Your task to perform on an android device: Open Chrome and go to settings Image 0: 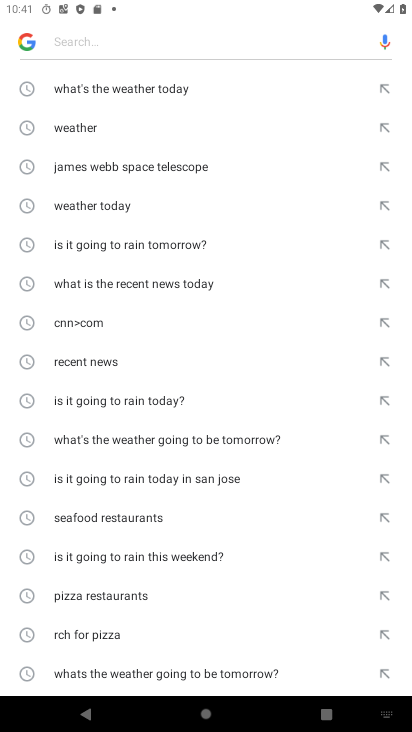
Step 0: press home button
Your task to perform on an android device: Open Chrome and go to settings Image 1: 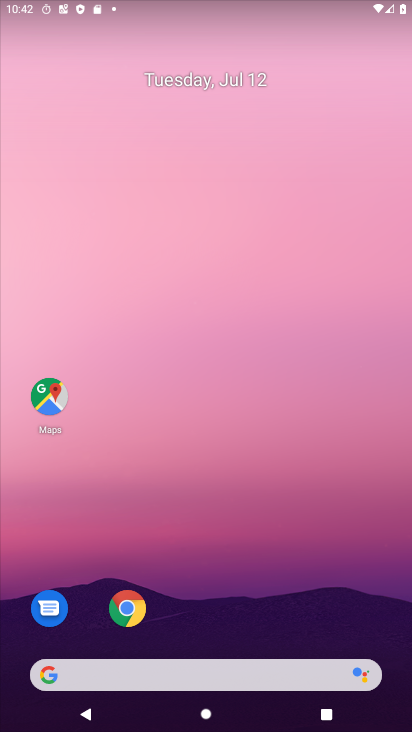
Step 1: click (131, 608)
Your task to perform on an android device: Open Chrome and go to settings Image 2: 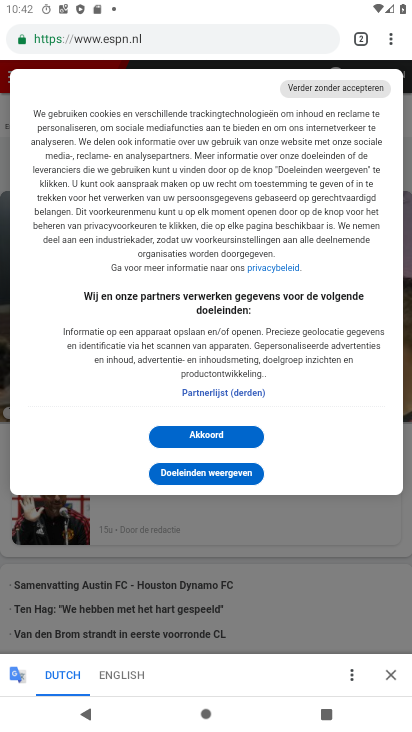
Step 2: click (395, 42)
Your task to perform on an android device: Open Chrome and go to settings Image 3: 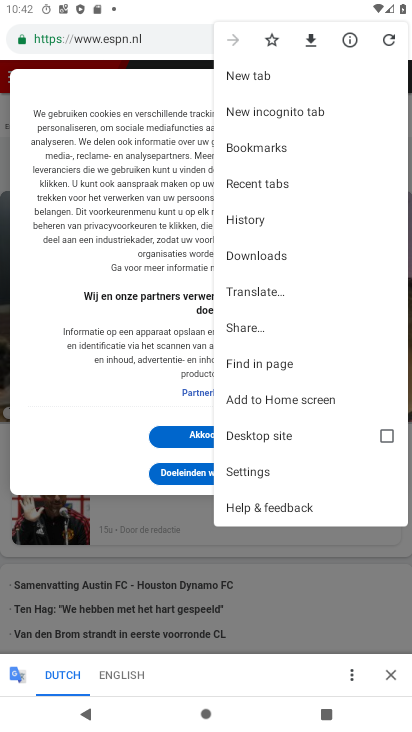
Step 3: click (252, 478)
Your task to perform on an android device: Open Chrome and go to settings Image 4: 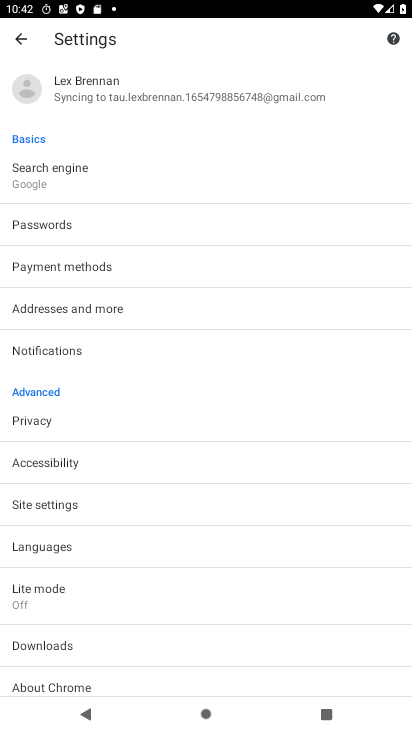
Step 4: task complete